Your task to perform on an android device: Go to calendar. Show me events next week Image 0: 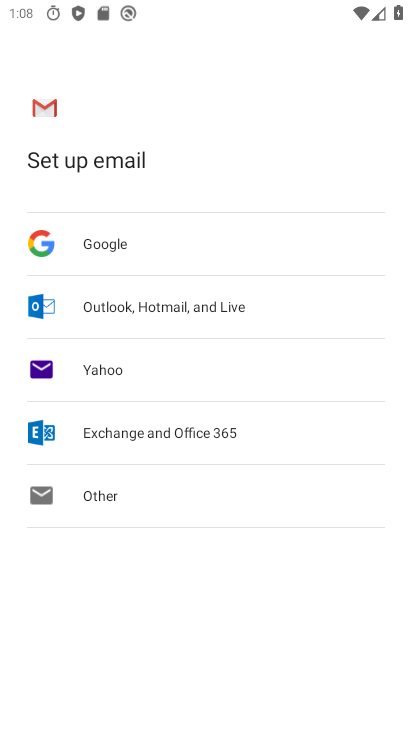
Step 0: press home button
Your task to perform on an android device: Go to calendar. Show me events next week Image 1: 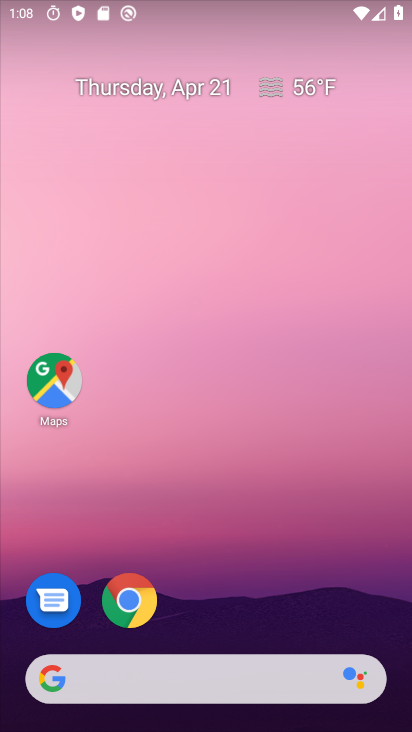
Step 1: drag from (388, 625) to (356, 159)
Your task to perform on an android device: Go to calendar. Show me events next week Image 2: 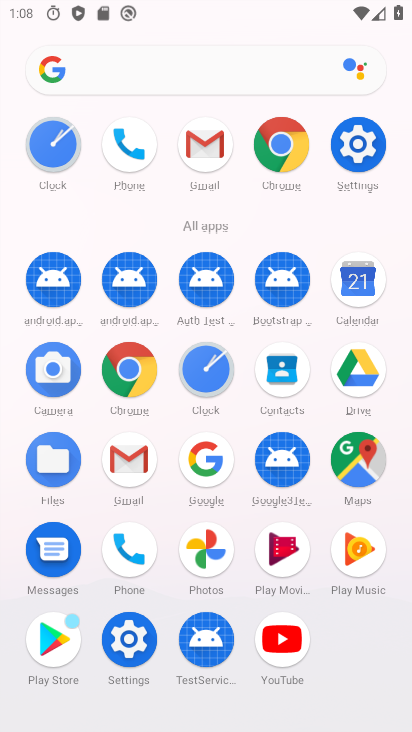
Step 2: click (358, 291)
Your task to perform on an android device: Go to calendar. Show me events next week Image 3: 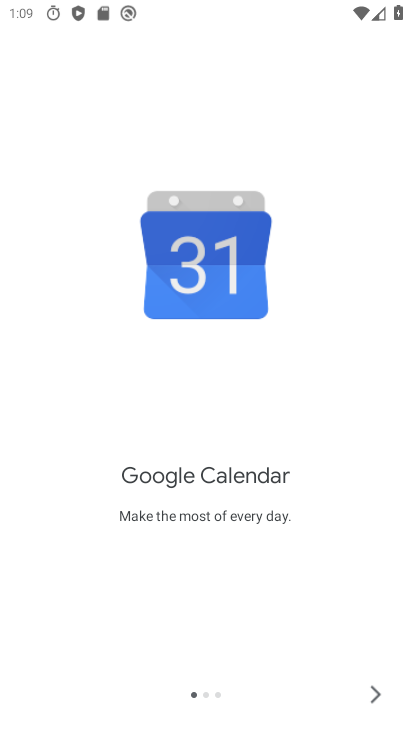
Step 3: click (375, 692)
Your task to perform on an android device: Go to calendar. Show me events next week Image 4: 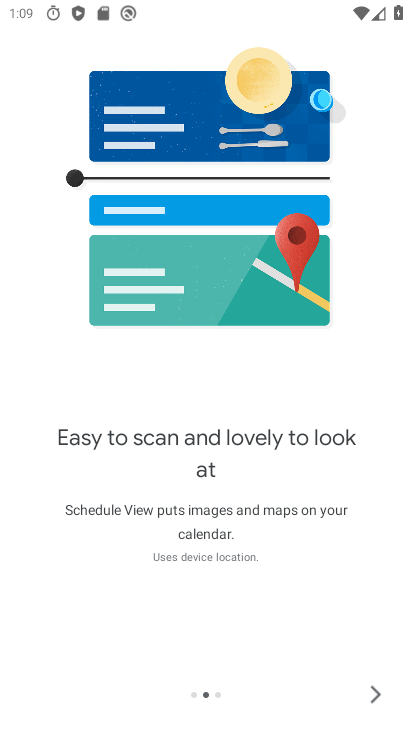
Step 4: click (375, 692)
Your task to perform on an android device: Go to calendar. Show me events next week Image 5: 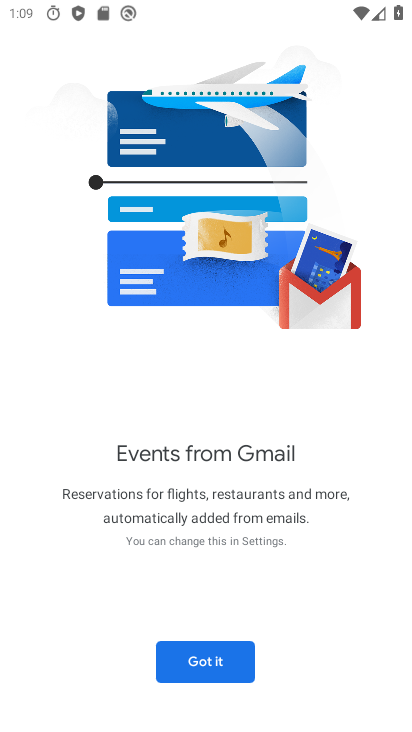
Step 5: click (210, 666)
Your task to perform on an android device: Go to calendar. Show me events next week Image 6: 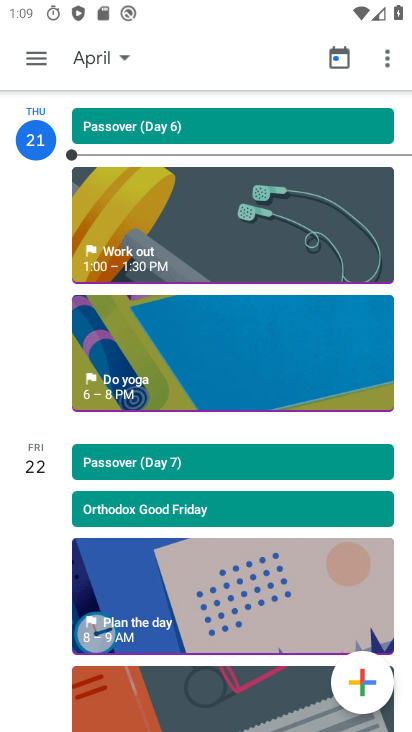
Step 6: click (123, 59)
Your task to perform on an android device: Go to calendar. Show me events next week Image 7: 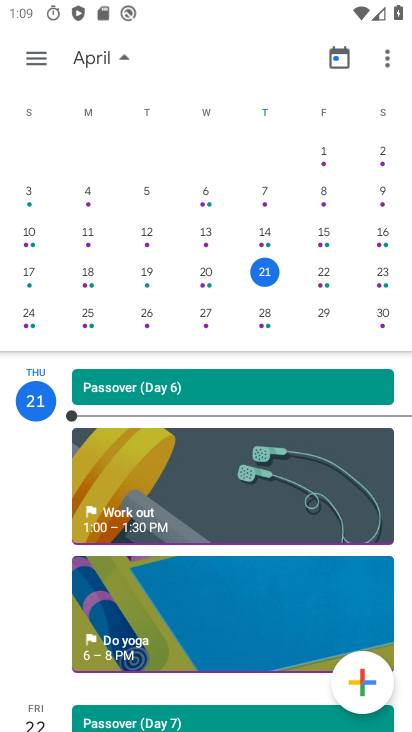
Step 7: click (209, 312)
Your task to perform on an android device: Go to calendar. Show me events next week Image 8: 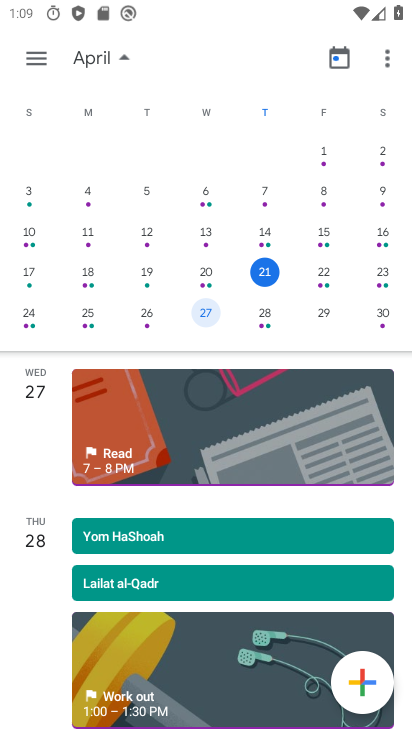
Step 8: click (43, 52)
Your task to perform on an android device: Go to calendar. Show me events next week Image 9: 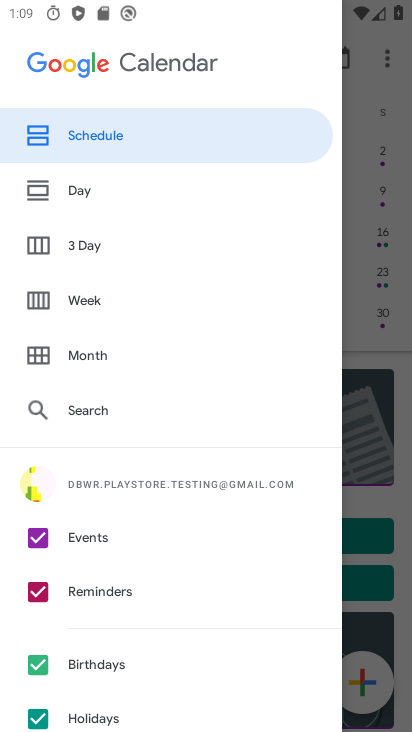
Step 9: click (87, 300)
Your task to perform on an android device: Go to calendar. Show me events next week Image 10: 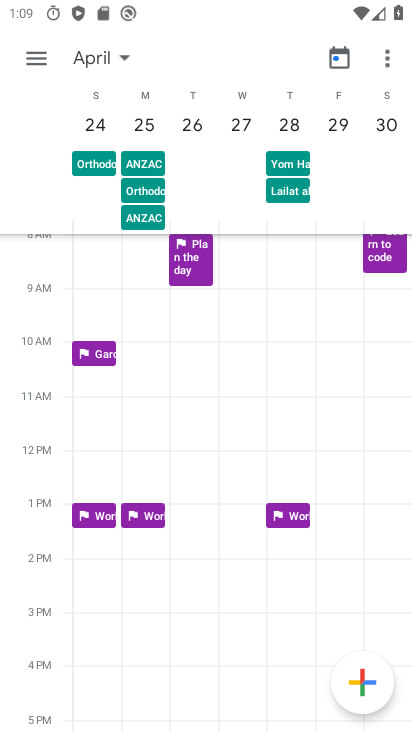
Step 10: task complete